Your task to perform on an android device: Toggle the flashlight Image 0: 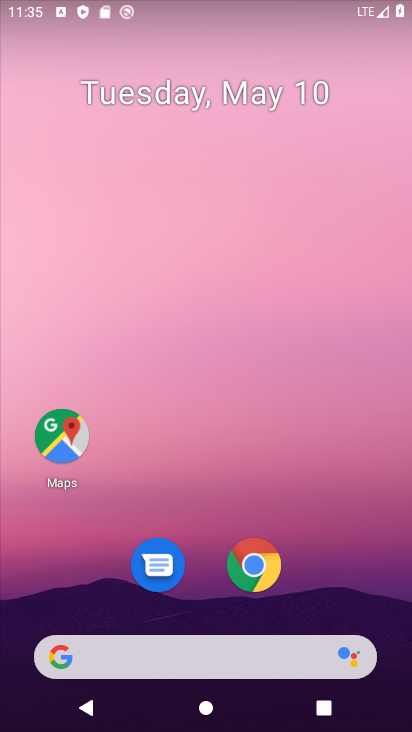
Step 0: drag from (49, 547) to (252, 128)
Your task to perform on an android device: Toggle the flashlight Image 1: 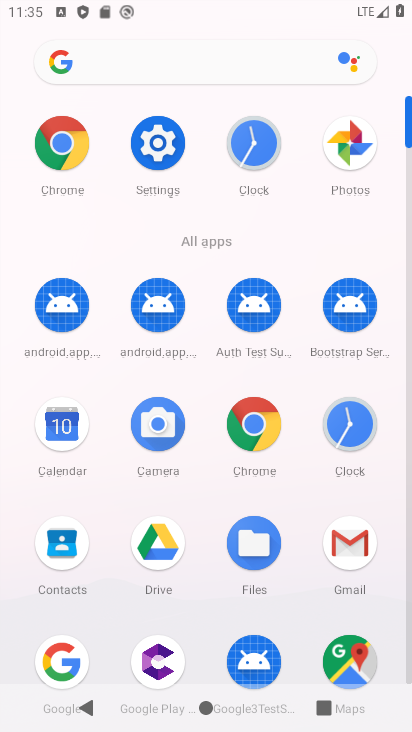
Step 1: click (141, 141)
Your task to perform on an android device: Toggle the flashlight Image 2: 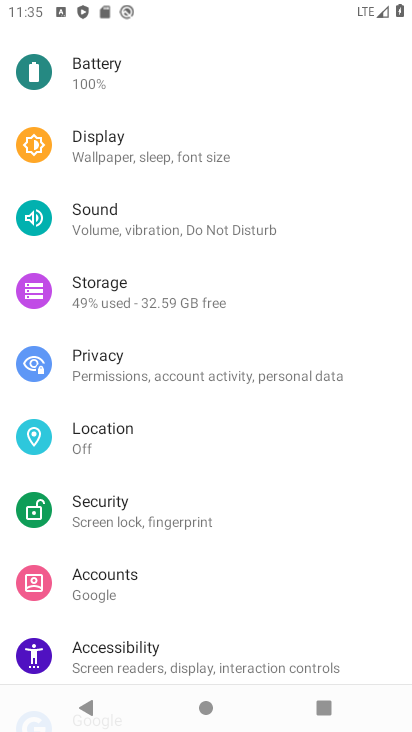
Step 2: click (78, 360)
Your task to perform on an android device: Toggle the flashlight Image 3: 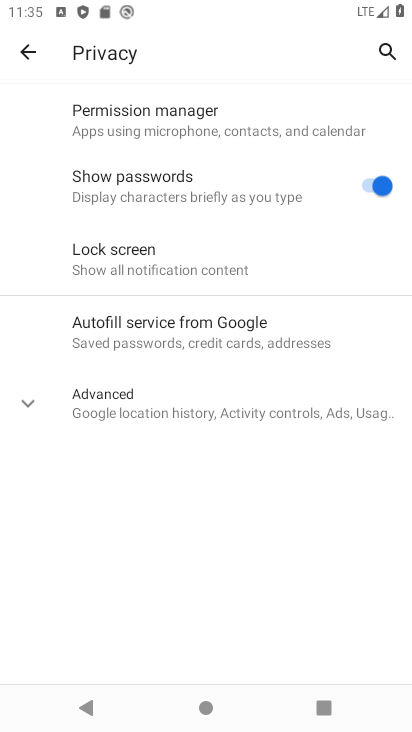
Step 3: task complete